Your task to perform on an android device: Add bose quietcomfort 35 to the cart on walmart Image 0: 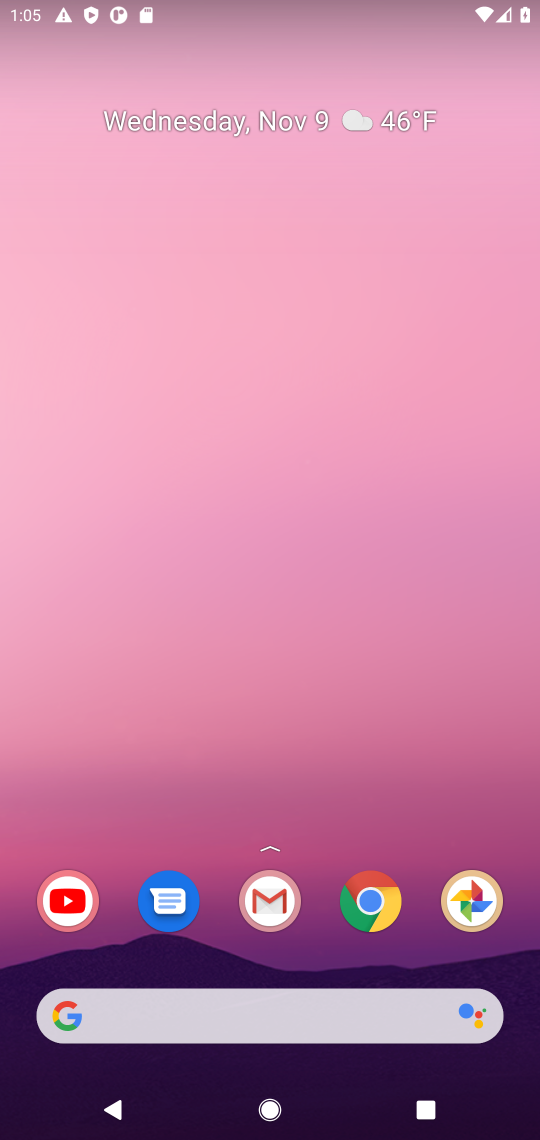
Step 0: click (384, 905)
Your task to perform on an android device: Add bose quietcomfort 35 to the cart on walmart Image 1: 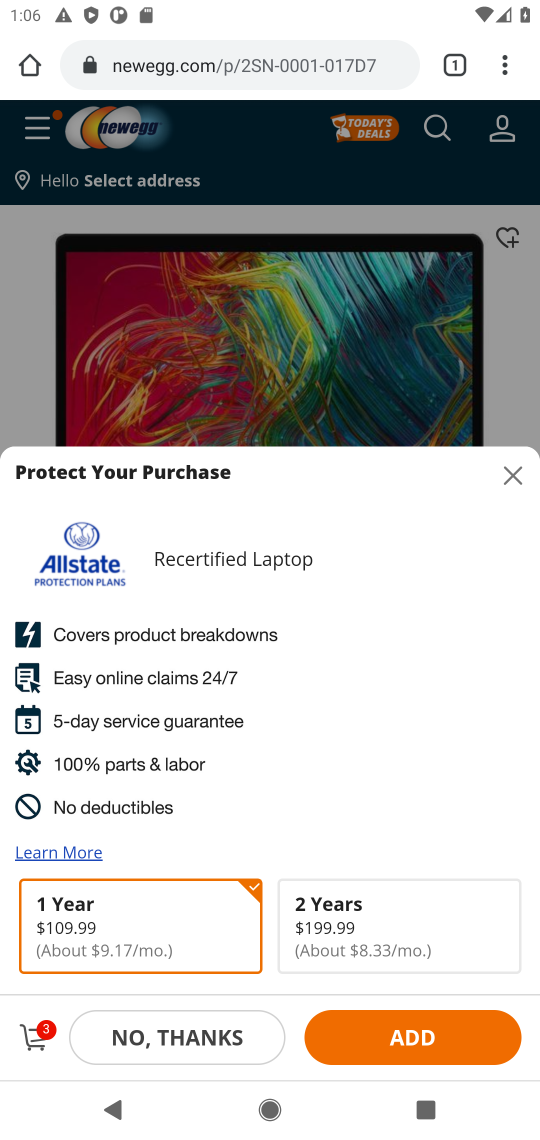
Step 1: click (250, 61)
Your task to perform on an android device: Add bose quietcomfort 35 to the cart on walmart Image 2: 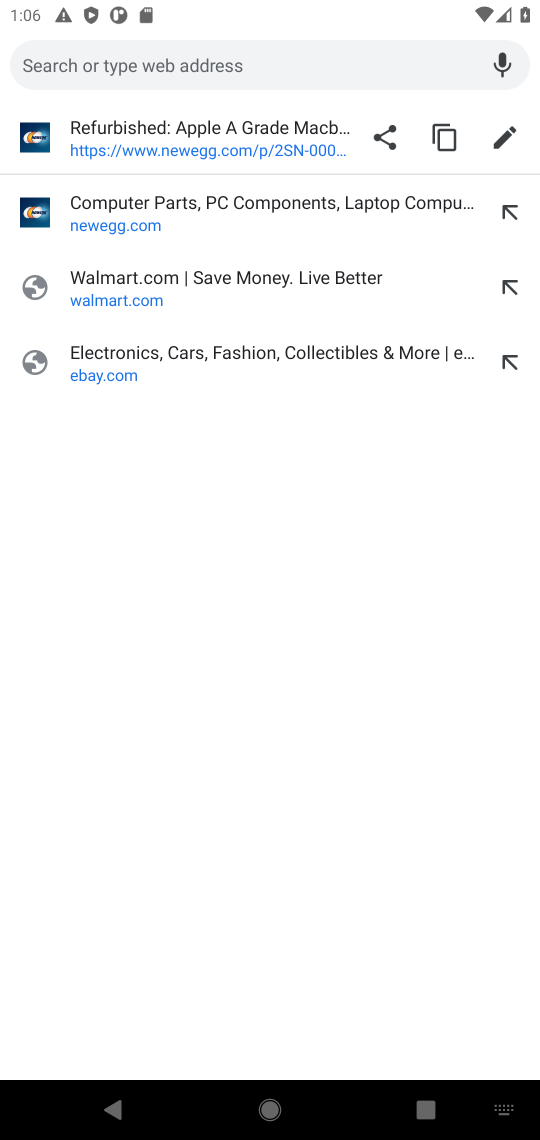
Step 2: type "walmart"
Your task to perform on an android device: Add bose quietcomfort 35 to the cart on walmart Image 3: 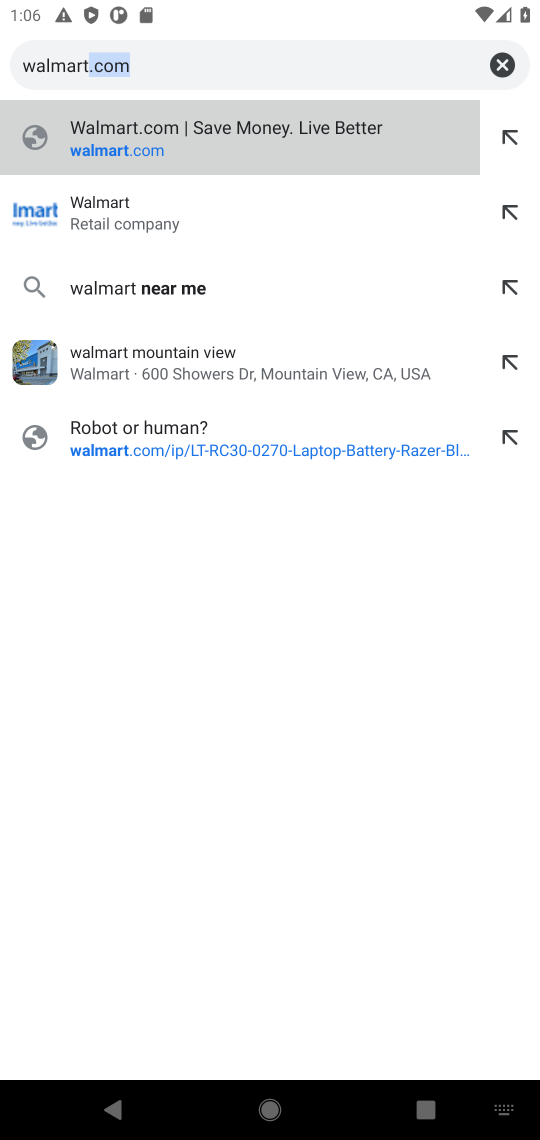
Step 3: press enter
Your task to perform on an android device: Add bose quietcomfort 35 to the cart on walmart Image 4: 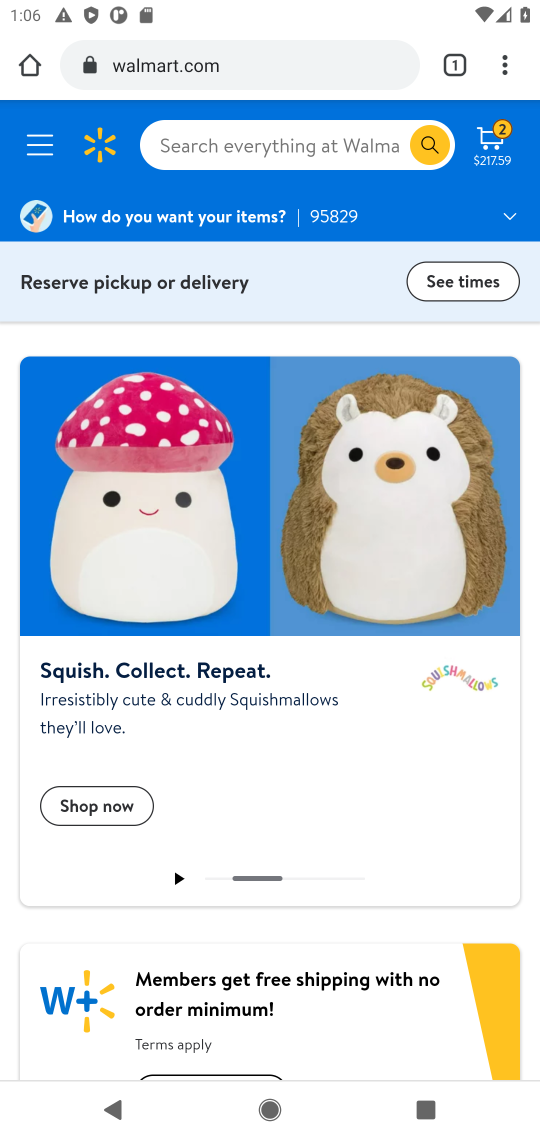
Step 4: click (278, 133)
Your task to perform on an android device: Add bose quietcomfort 35 to the cart on walmart Image 5: 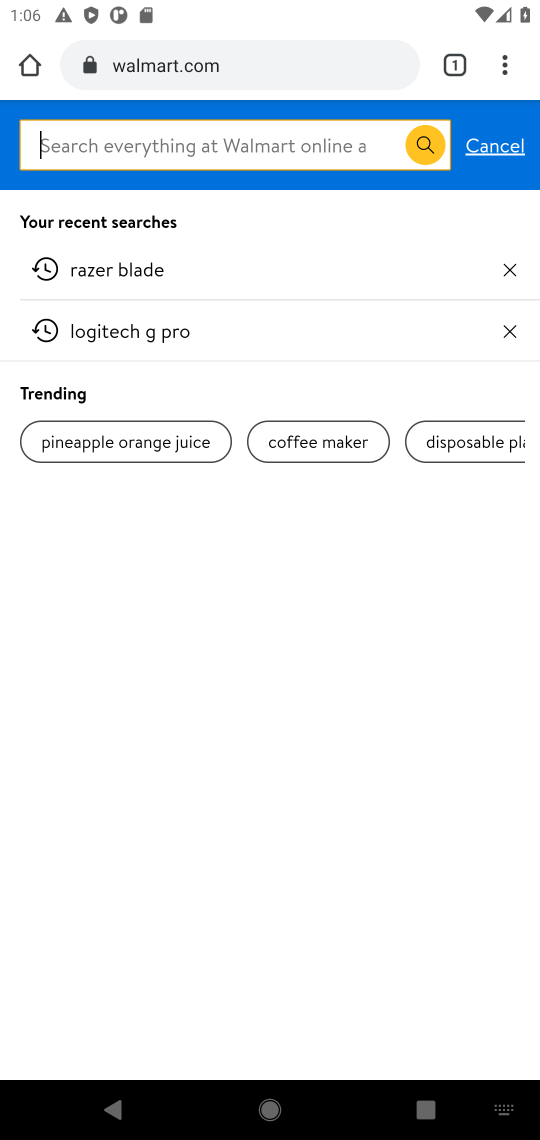
Step 5: type "bose quietcomfort 35"
Your task to perform on an android device: Add bose quietcomfort 35 to the cart on walmart Image 6: 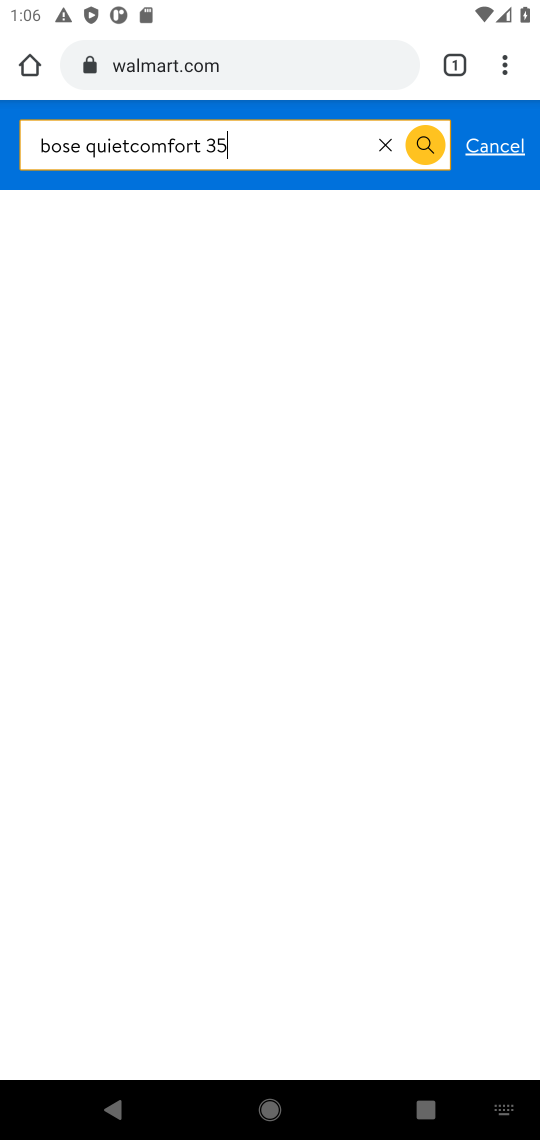
Step 6: press enter
Your task to perform on an android device: Add bose quietcomfort 35 to the cart on walmart Image 7: 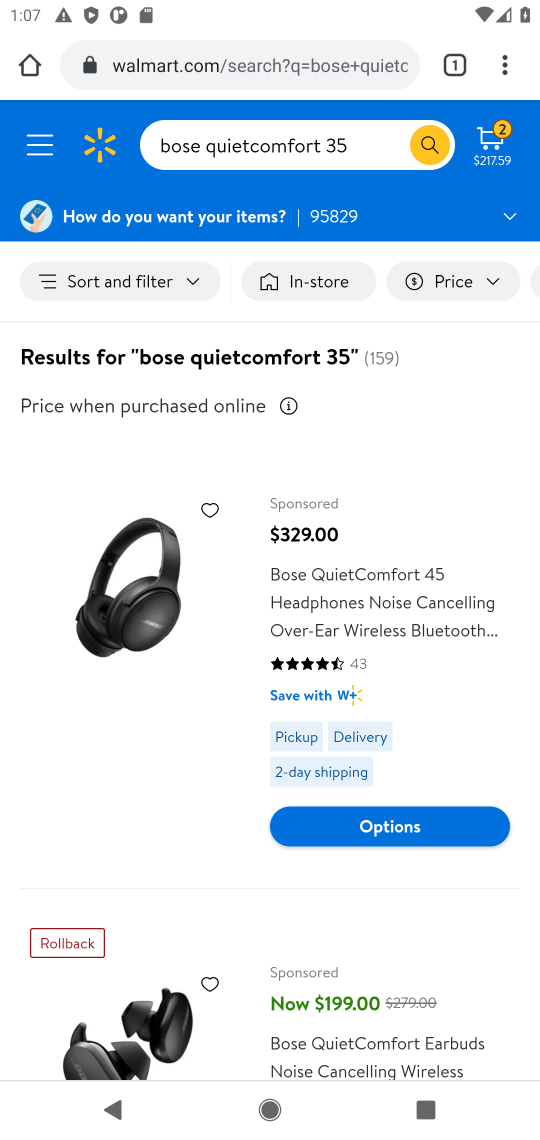
Step 7: drag from (502, 960) to (477, 487)
Your task to perform on an android device: Add bose quietcomfort 35 to the cart on walmart Image 8: 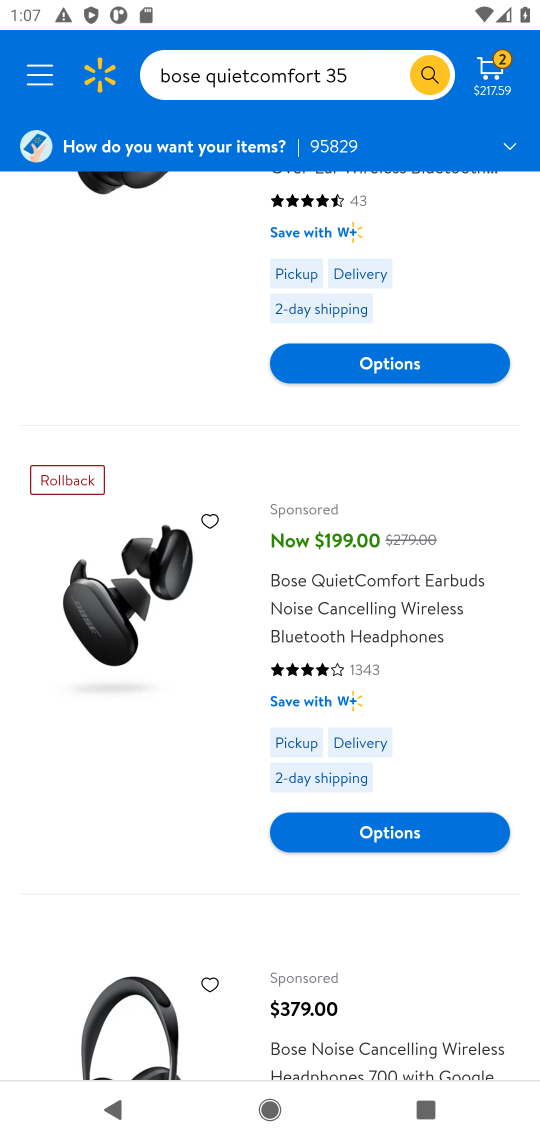
Step 8: drag from (489, 727) to (487, 349)
Your task to perform on an android device: Add bose quietcomfort 35 to the cart on walmart Image 9: 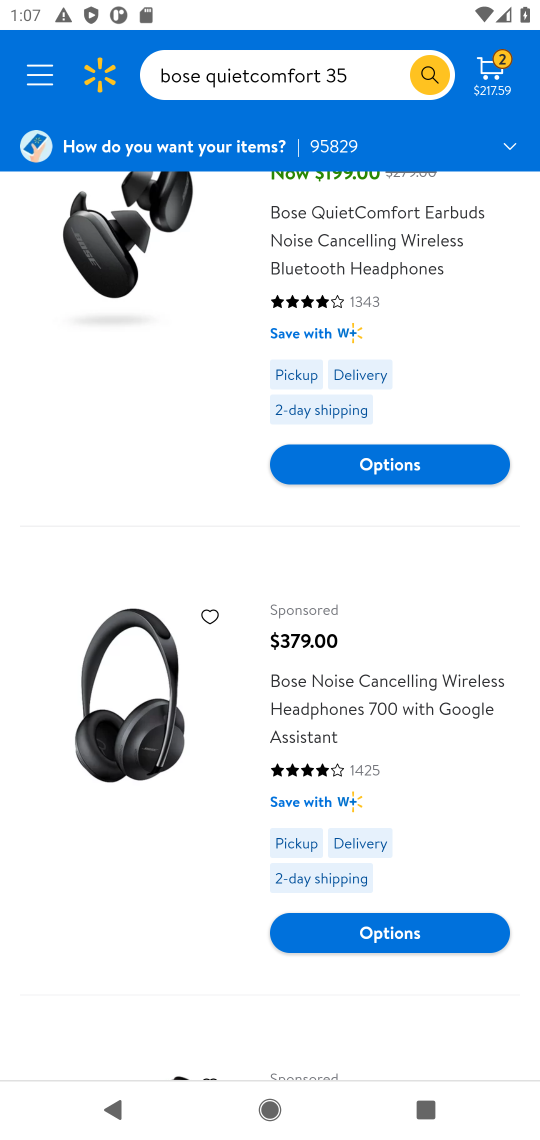
Step 9: drag from (488, 785) to (497, 368)
Your task to perform on an android device: Add bose quietcomfort 35 to the cart on walmart Image 10: 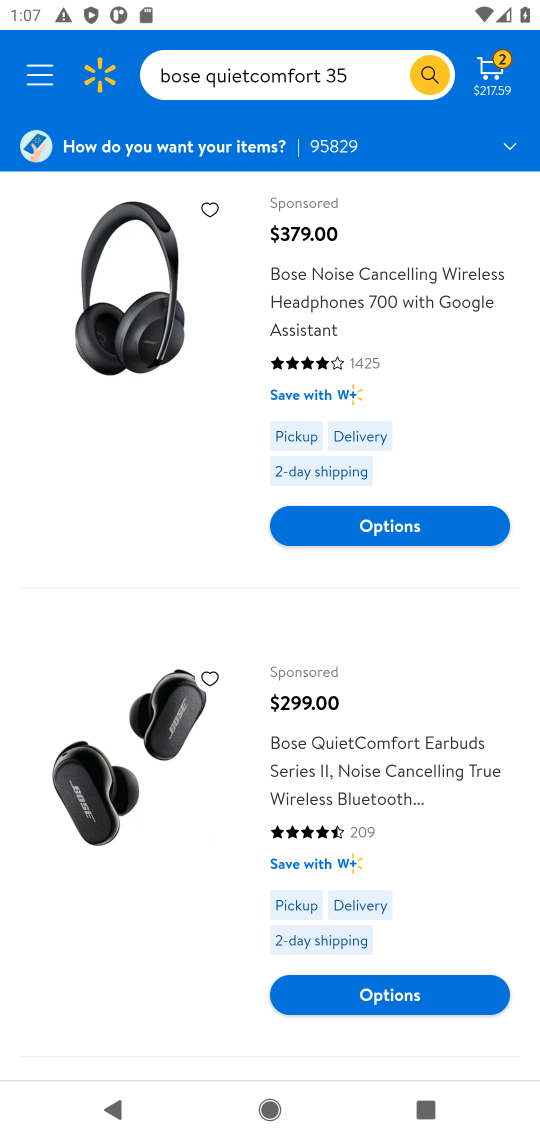
Step 10: drag from (487, 884) to (480, 544)
Your task to perform on an android device: Add bose quietcomfort 35 to the cart on walmart Image 11: 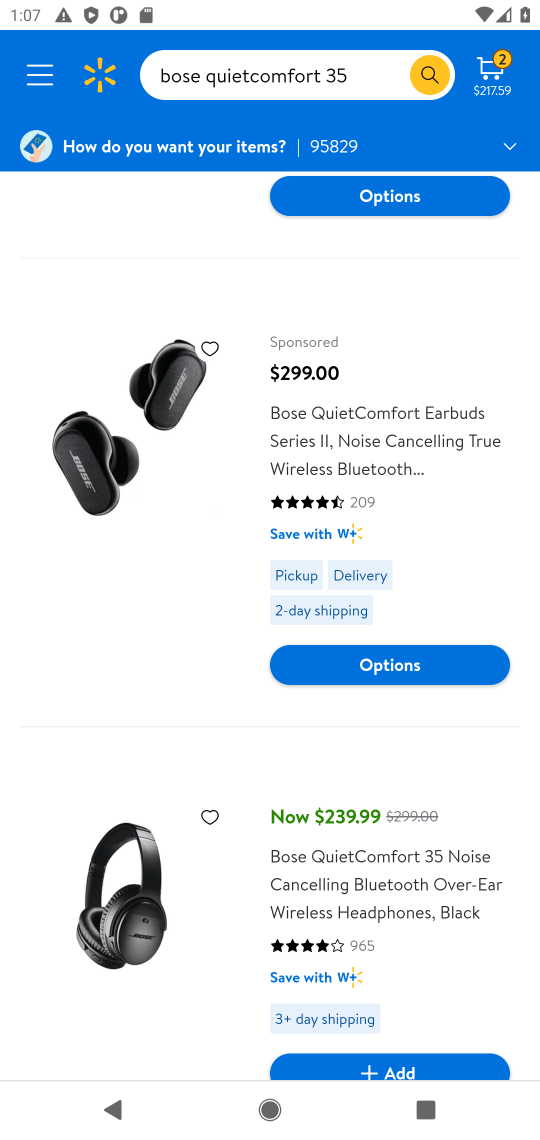
Step 11: click (155, 877)
Your task to perform on an android device: Add bose quietcomfort 35 to the cart on walmart Image 12: 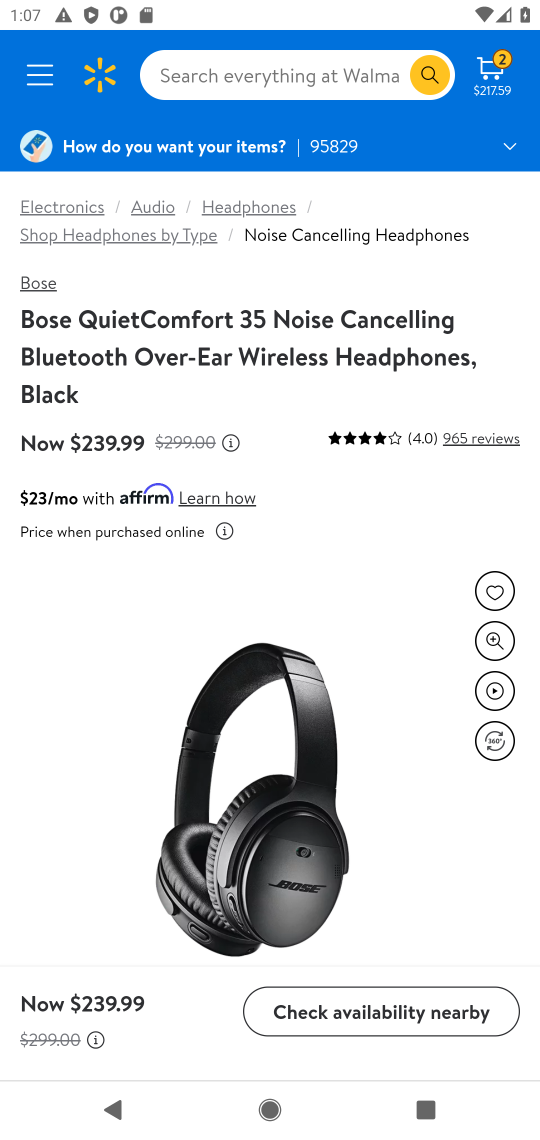
Step 12: drag from (390, 739) to (391, 200)
Your task to perform on an android device: Add bose quietcomfort 35 to the cart on walmart Image 13: 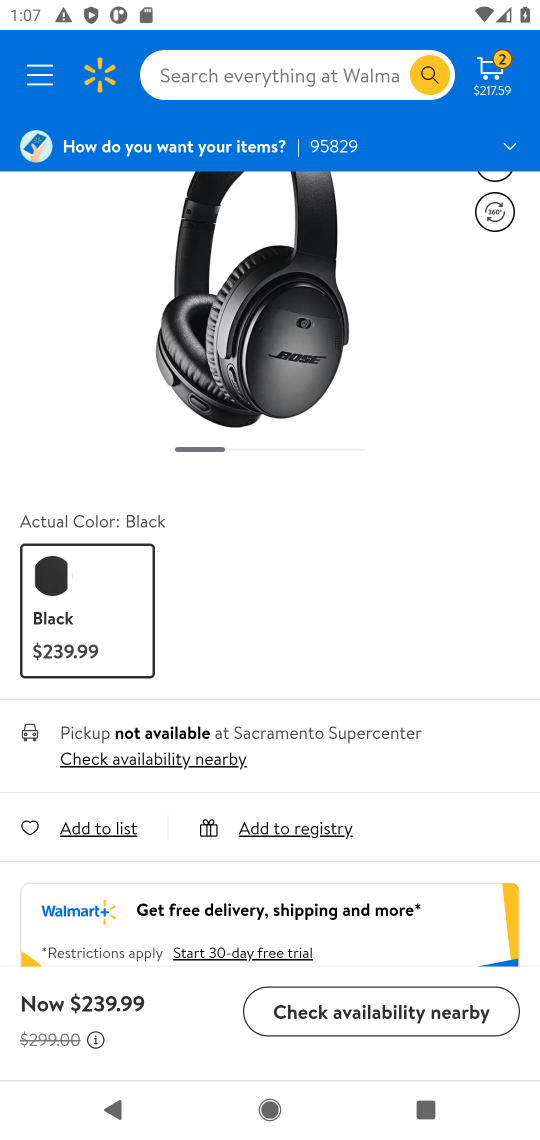
Step 13: drag from (415, 668) to (400, 255)
Your task to perform on an android device: Add bose quietcomfort 35 to the cart on walmart Image 14: 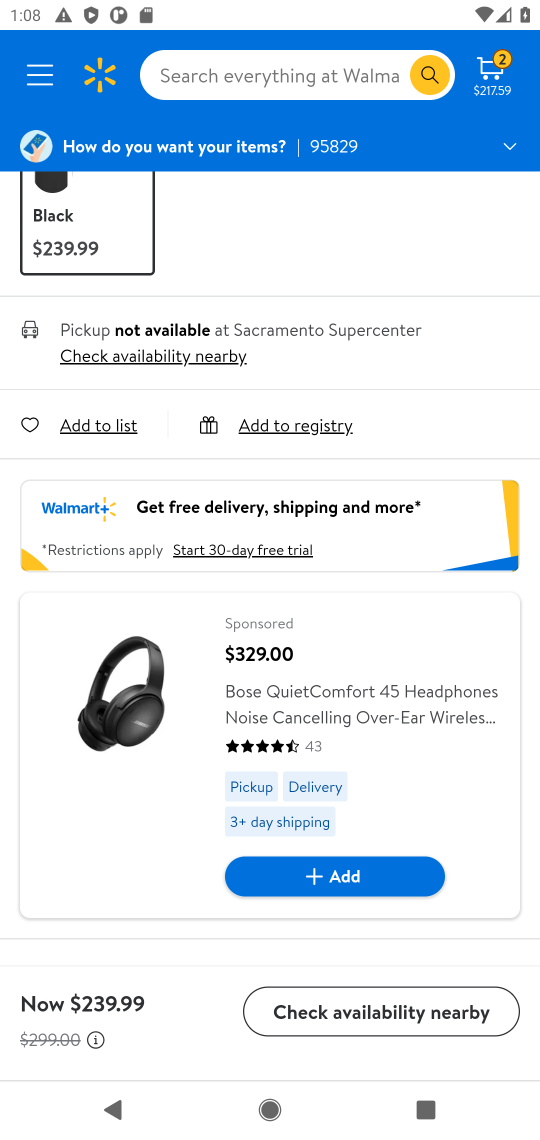
Step 14: drag from (485, 762) to (436, 899)
Your task to perform on an android device: Add bose quietcomfort 35 to the cart on walmart Image 15: 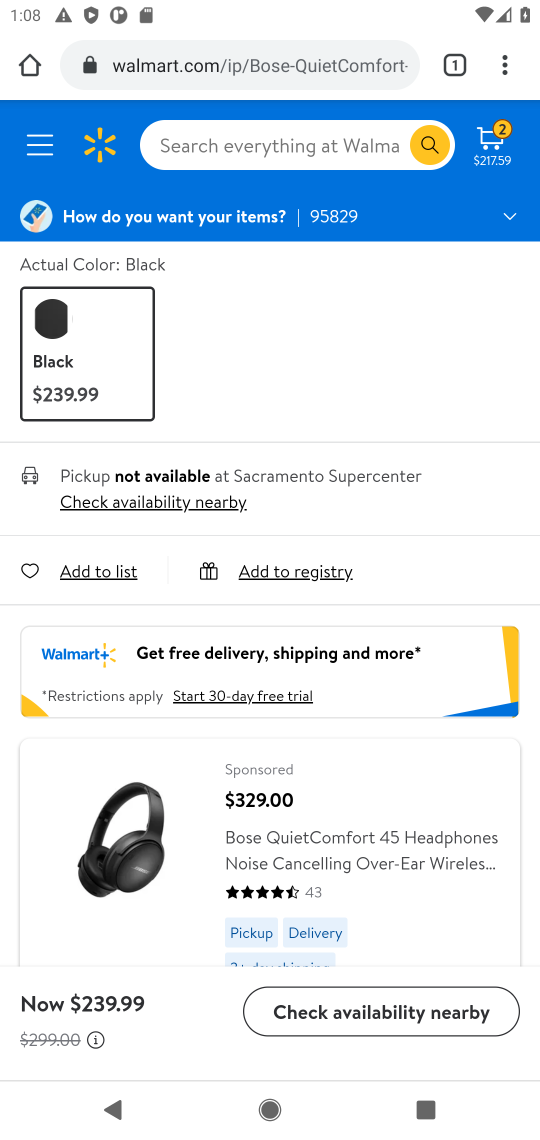
Step 15: press back button
Your task to perform on an android device: Add bose quietcomfort 35 to the cart on walmart Image 16: 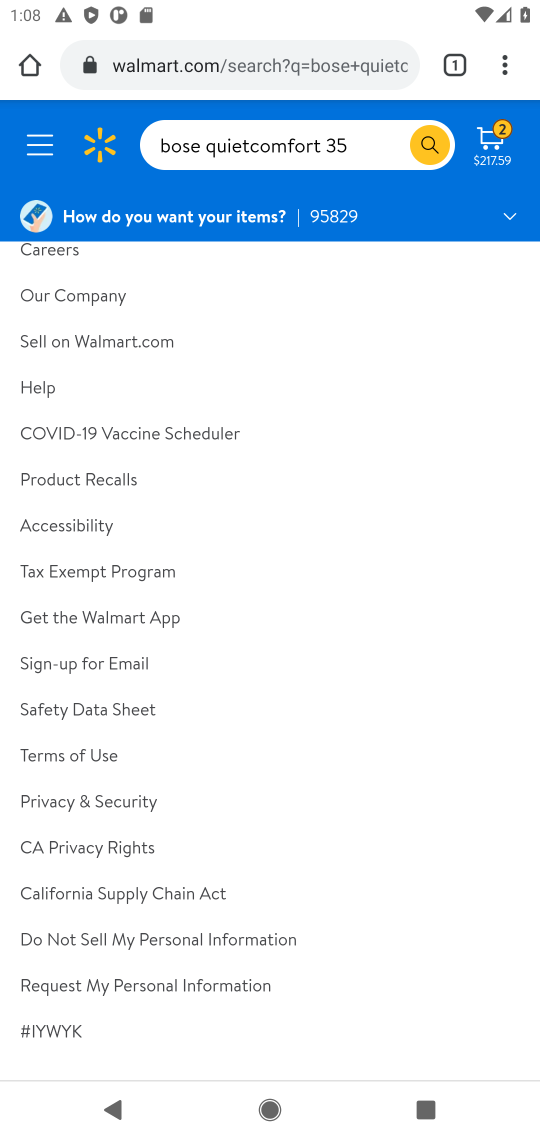
Step 16: click (377, 155)
Your task to perform on an android device: Add bose quietcomfort 35 to the cart on walmart Image 17: 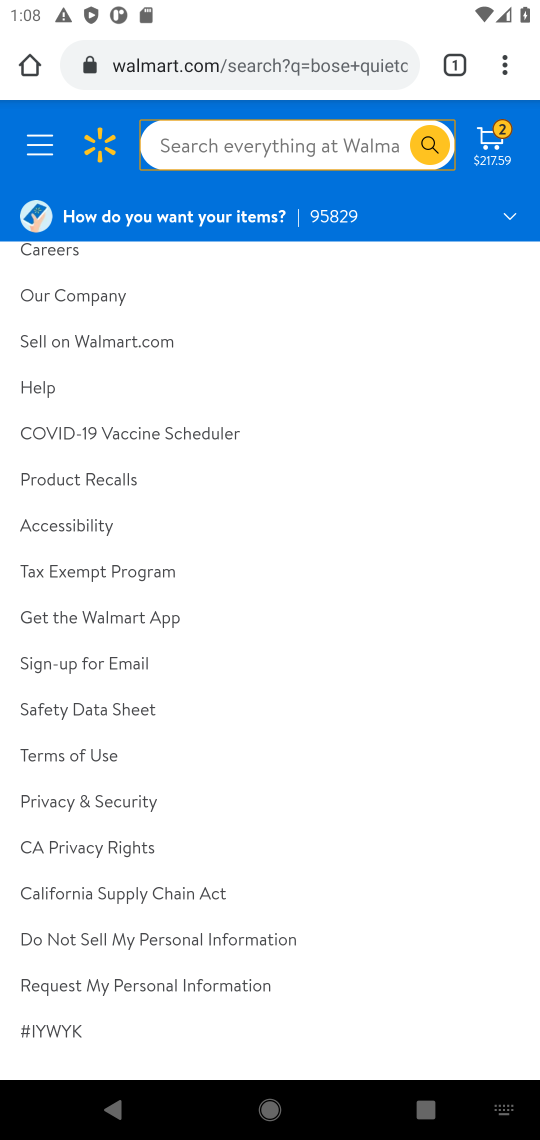
Step 17: type "bose quietcomfort 35"
Your task to perform on an android device: Add bose quietcomfort 35 to the cart on walmart Image 18: 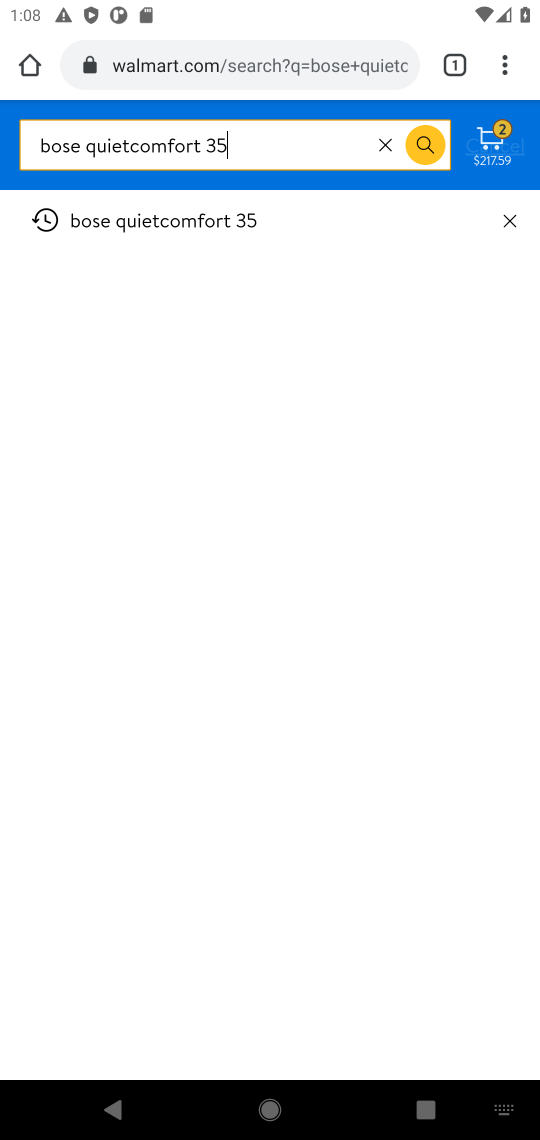
Step 18: press enter
Your task to perform on an android device: Add bose quietcomfort 35 to the cart on walmart Image 19: 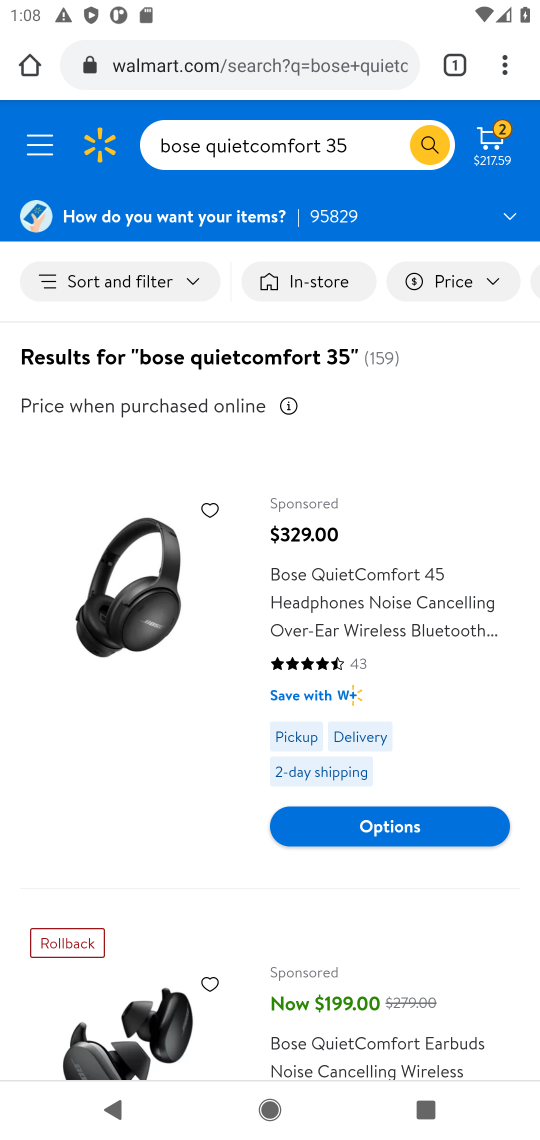
Step 19: drag from (444, 932) to (390, 379)
Your task to perform on an android device: Add bose quietcomfort 35 to the cart on walmart Image 20: 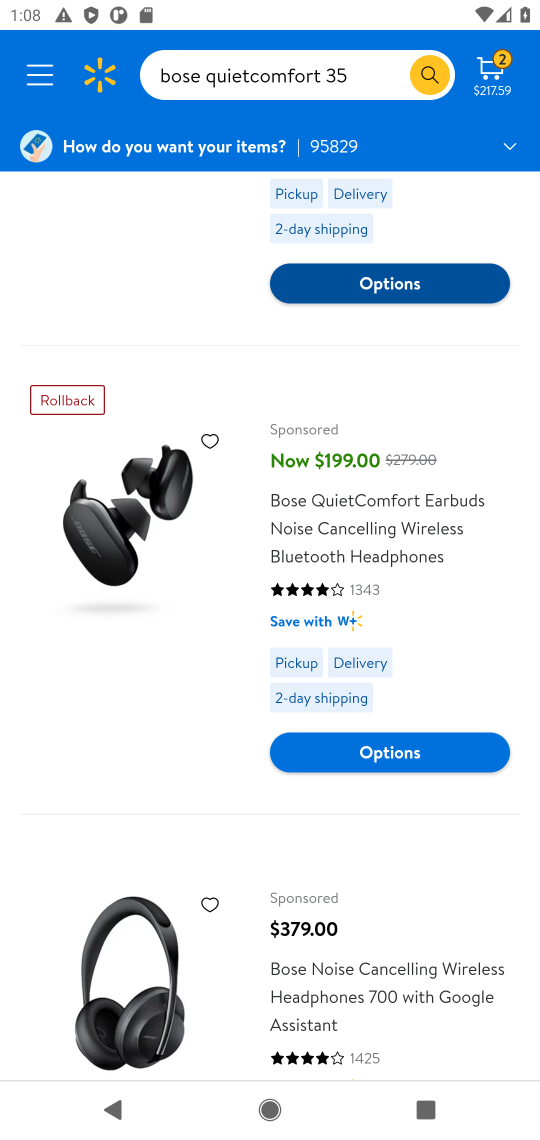
Step 20: drag from (436, 893) to (462, 378)
Your task to perform on an android device: Add bose quietcomfort 35 to the cart on walmart Image 21: 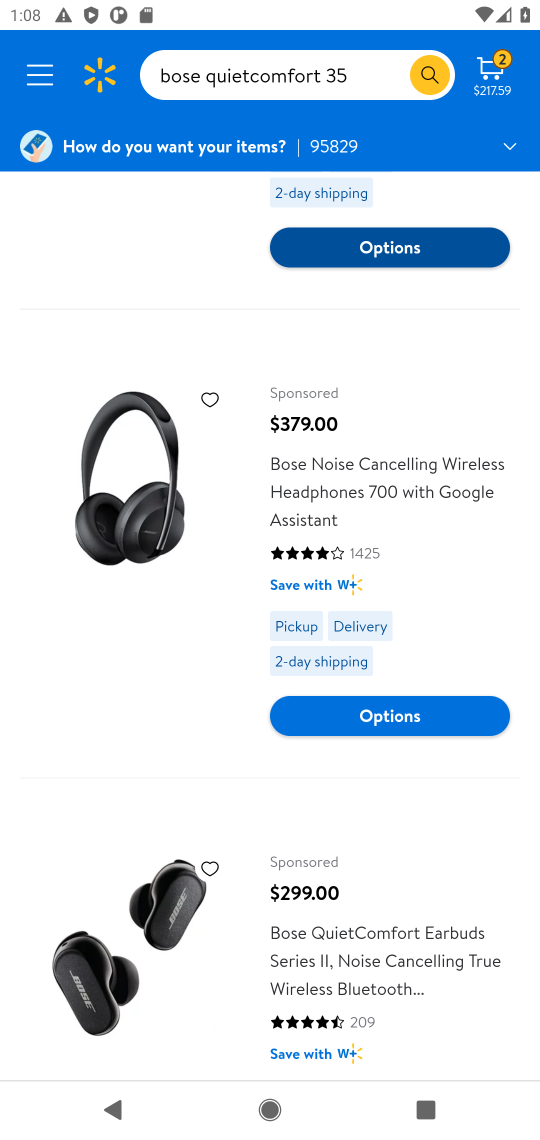
Step 21: drag from (501, 1009) to (494, 353)
Your task to perform on an android device: Add bose quietcomfort 35 to the cart on walmart Image 22: 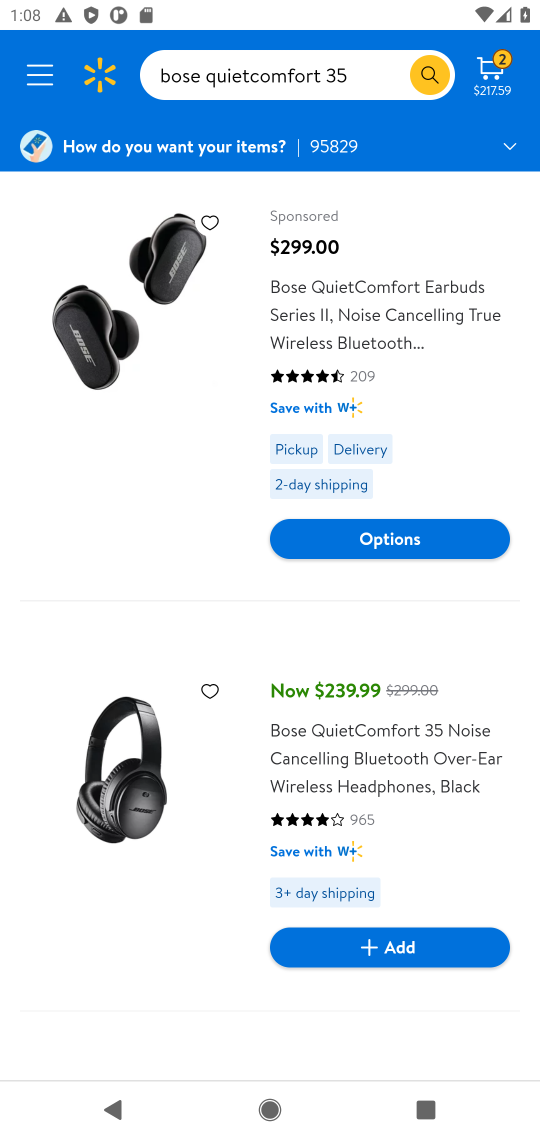
Step 22: click (139, 739)
Your task to perform on an android device: Add bose quietcomfort 35 to the cart on walmart Image 23: 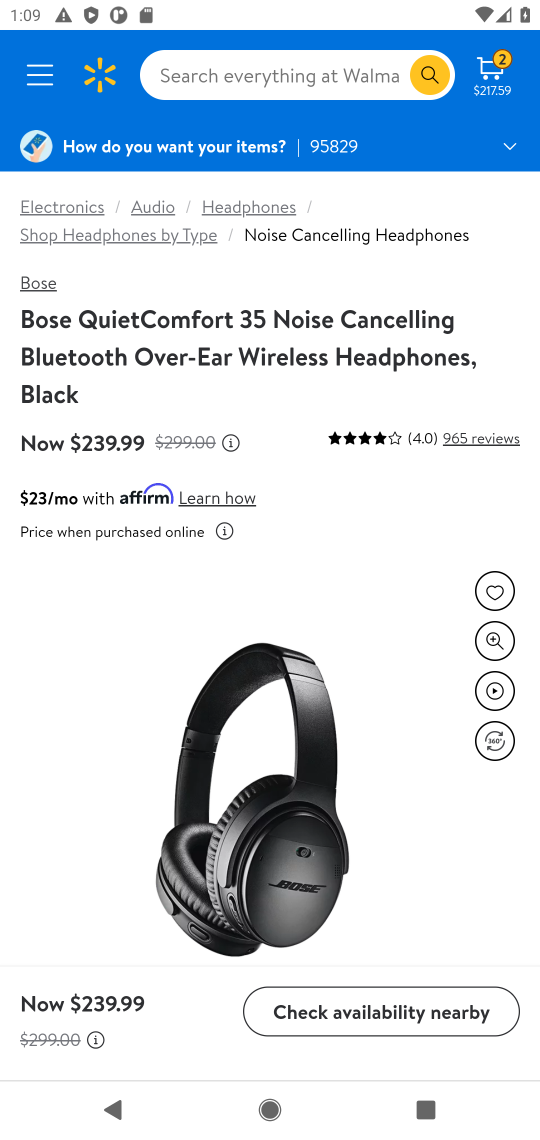
Step 23: drag from (391, 870) to (393, 319)
Your task to perform on an android device: Add bose quietcomfort 35 to the cart on walmart Image 24: 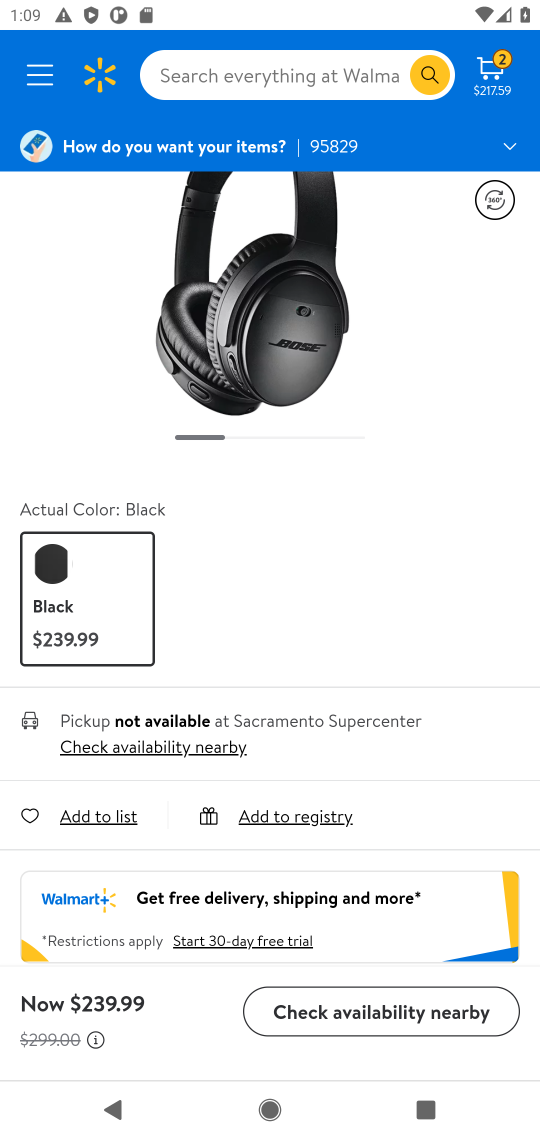
Step 24: drag from (401, 792) to (437, 230)
Your task to perform on an android device: Add bose quietcomfort 35 to the cart on walmart Image 25: 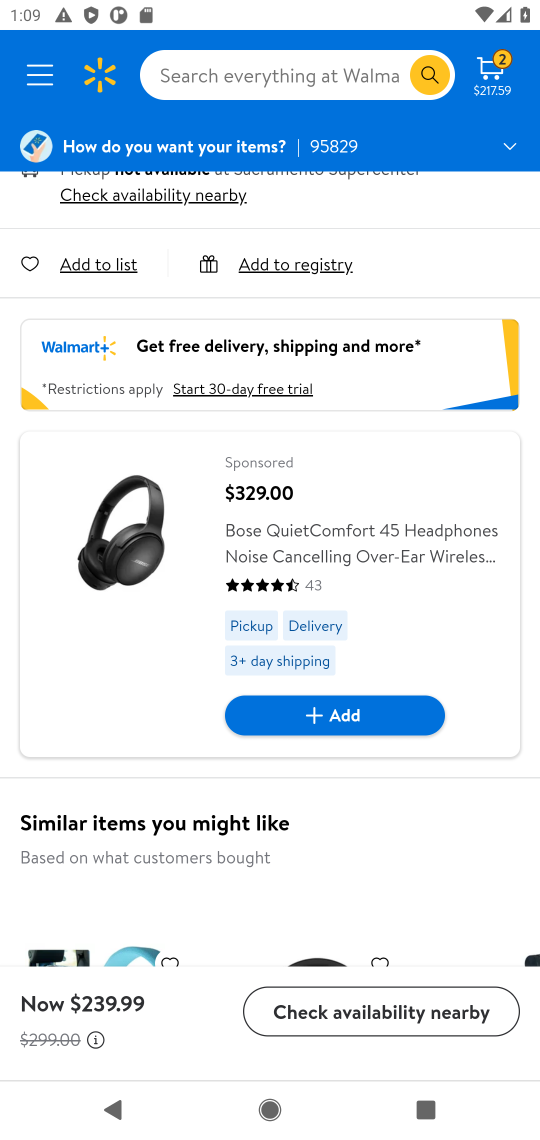
Step 25: drag from (489, 666) to (477, 260)
Your task to perform on an android device: Add bose quietcomfort 35 to the cart on walmart Image 26: 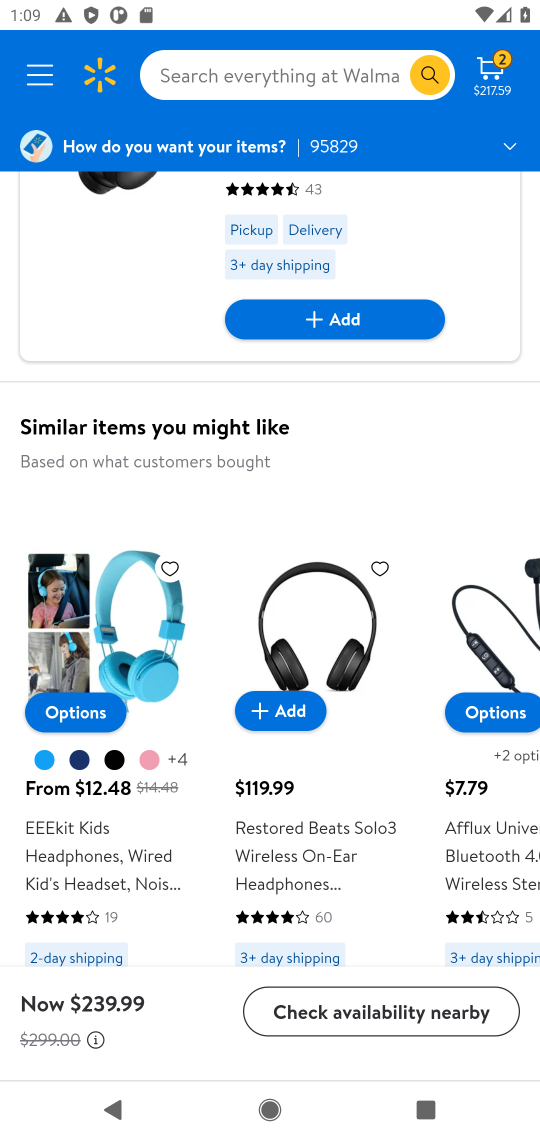
Step 26: press back button
Your task to perform on an android device: Add bose quietcomfort 35 to the cart on walmart Image 27: 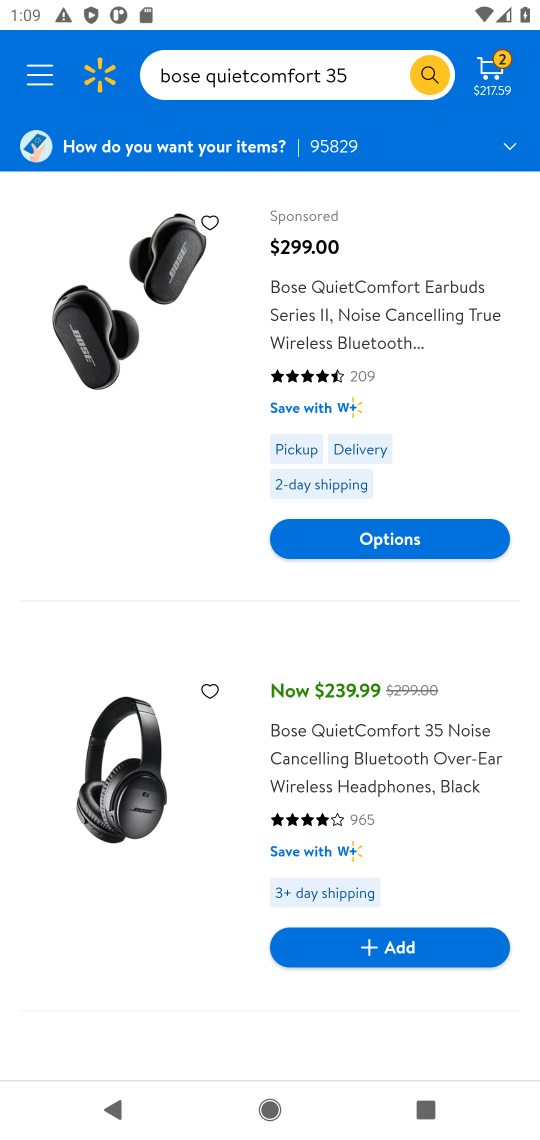
Step 27: drag from (164, 852) to (313, 250)
Your task to perform on an android device: Add bose quietcomfort 35 to the cart on walmart Image 28: 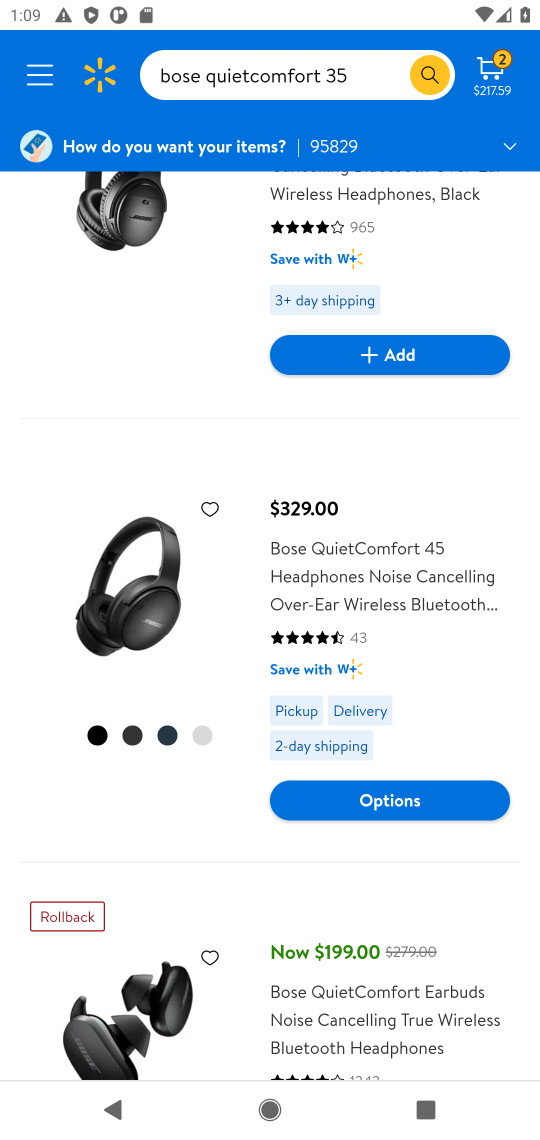
Step 28: drag from (464, 931) to (456, 315)
Your task to perform on an android device: Add bose quietcomfort 35 to the cart on walmart Image 29: 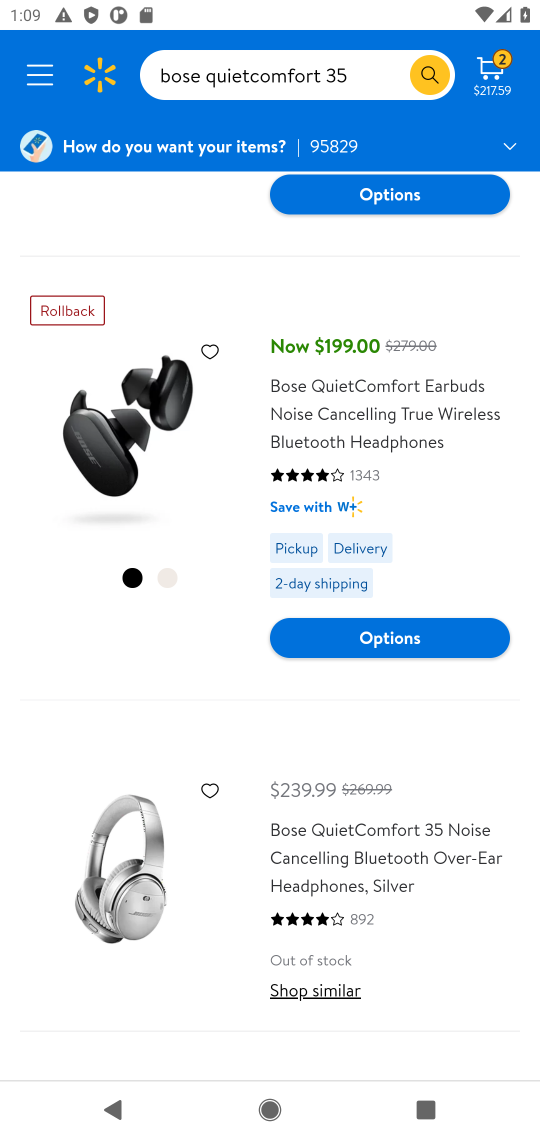
Step 29: click (138, 862)
Your task to perform on an android device: Add bose quietcomfort 35 to the cart on walmart Image 30: 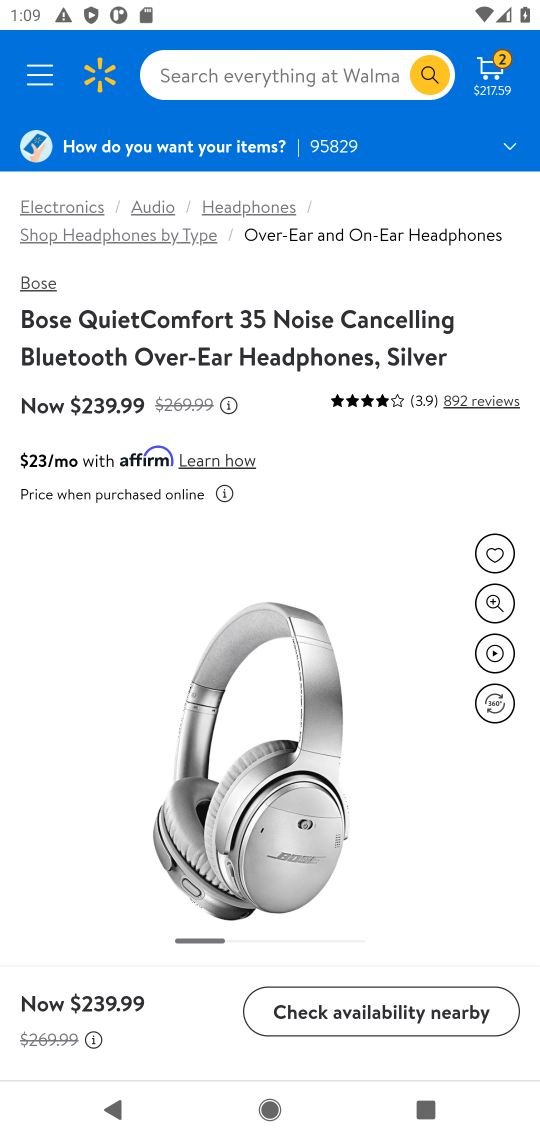
Step 30: task complete